Your task to perform on an android device: add a label to a message in the gmail app Image 0: 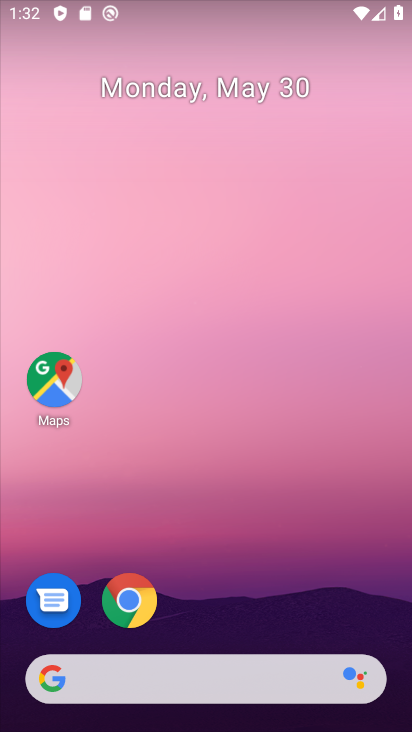
Step 0: drag from (224, 633) to (221, 552)
Your task to perform on an android device: add a label to a message in the gmail app Image 1: 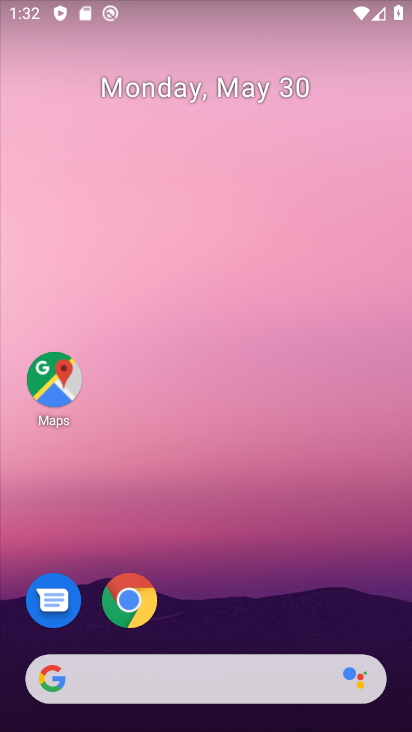
Step 1: drag from (200, 650) to (218, 101)
Your task to perform on an android device: add a label to a message in the gmail app Image 2: 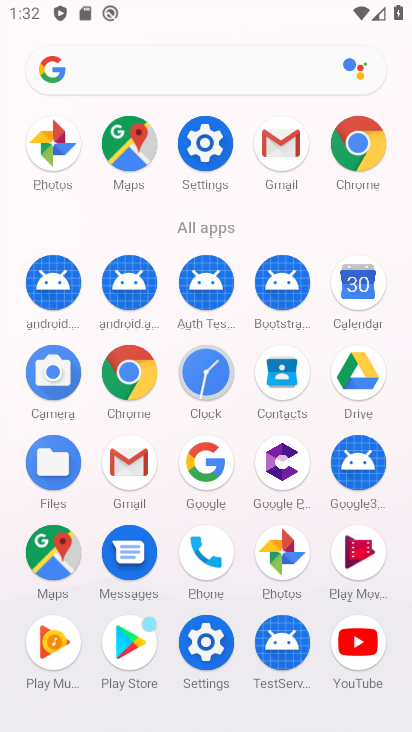
Step 2: click (129, 469)
Your task to perform on an android device: add a label to a message in the gmail app Image 3: 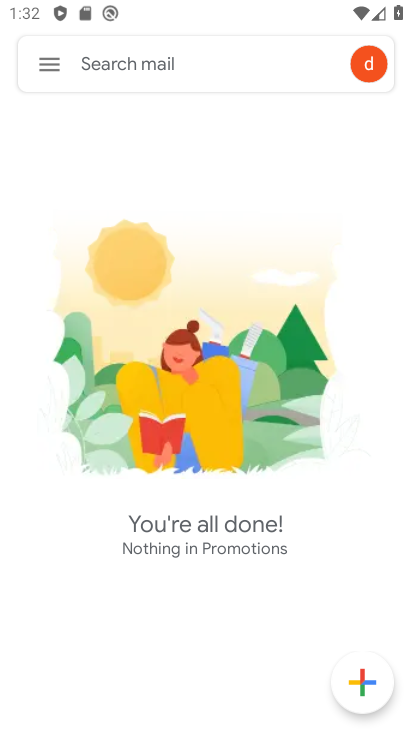
Step 3: task complete